Your task to perform on an android device: search for starred emails in the gmail app Image 0: 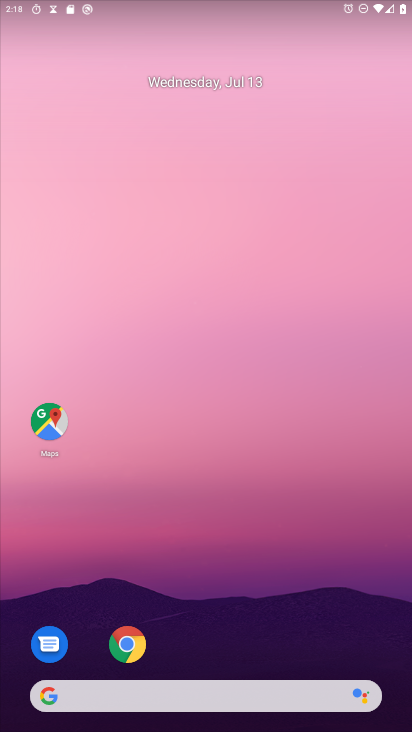
Step 0: press home button
Your task to perform on an android device: search for starred emails in the gmail app Image 1: 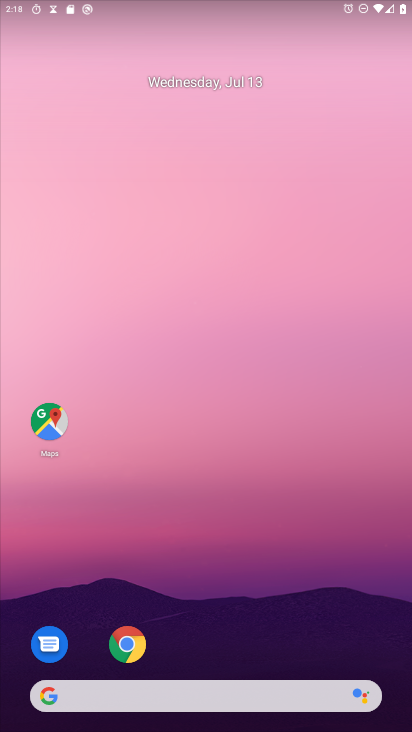
Step 1: drag from (261, 546) to (229, 113)
Your task to perform on an android device: search for starred emails in the gmail app Image 2: 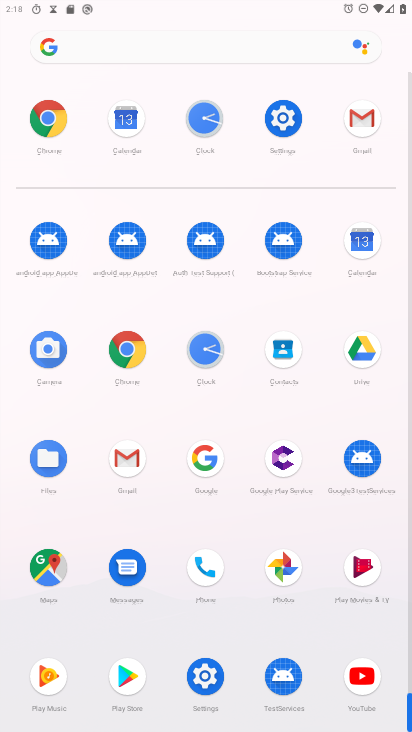
Step 2: click (356, 124)
Your task to perform on an android device: search for starred emails in the gmail app Image 3: 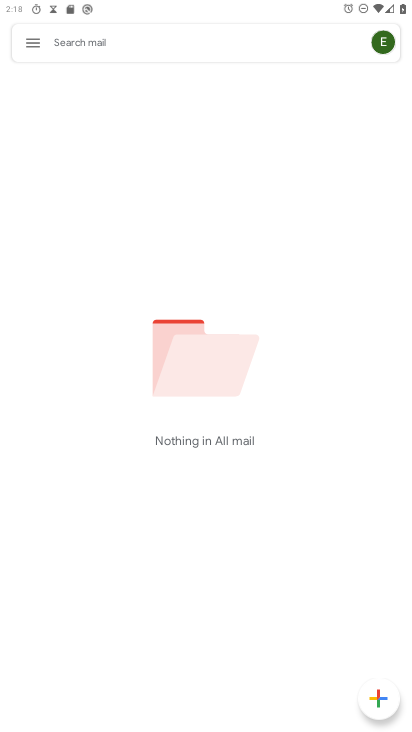
Step 3: click (34, 48)
Your task to perform on an android device: search for starred emails in the gmail app Image 4: 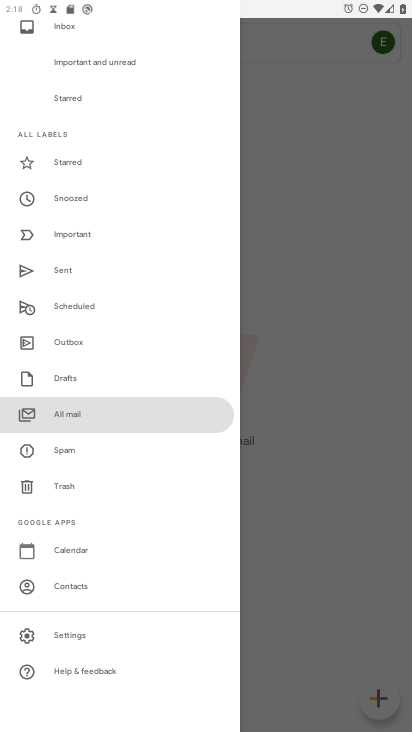
Step 4: click (65, 158)
Your task to perform on an android device: search for starred emails in the gmail app Image 5: 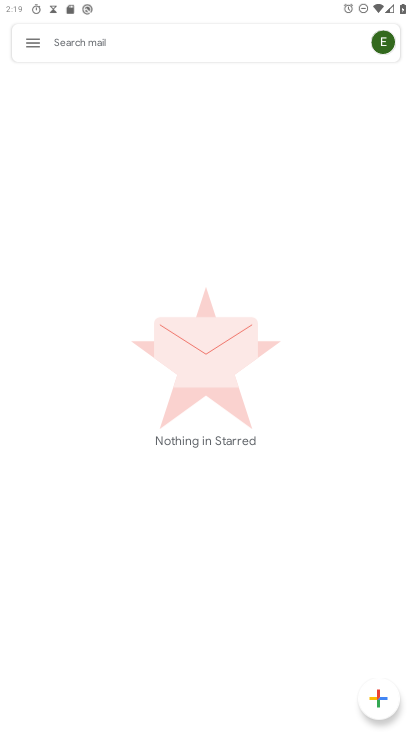
Step 5: task complete